Your task to perform on an android device: Search for hotels in Seattle Image 0: 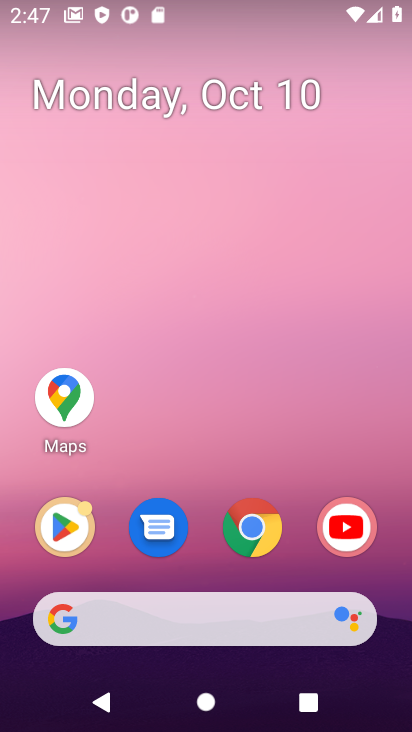
Step 0: press home button
Your task to perform on an android device: Search for hotels in Seattle Image 1: 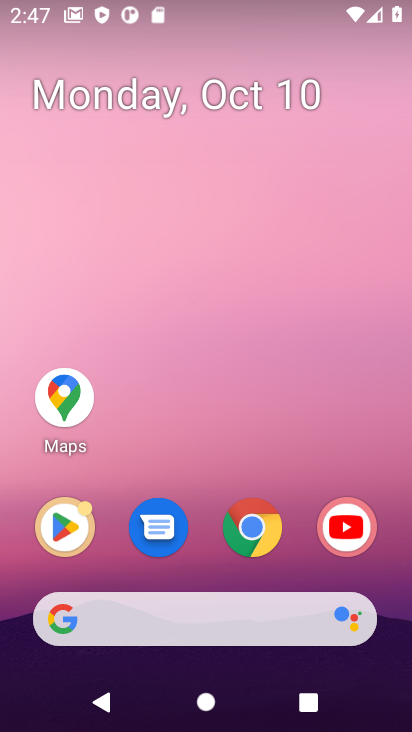
Step 1: click (268, 606)
Your task to perform on an android device: Search for hotels in Seattle Image 2: 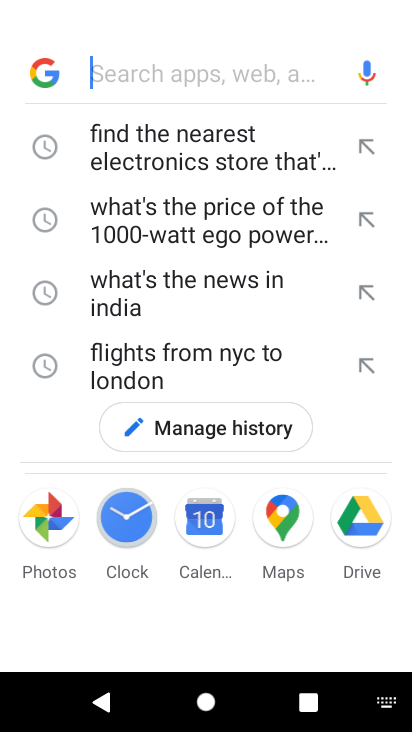
Step 2: type "Search for hotels in Seattle"
Your task to perform on an android device: Search for hotels in Seattle Image 3: 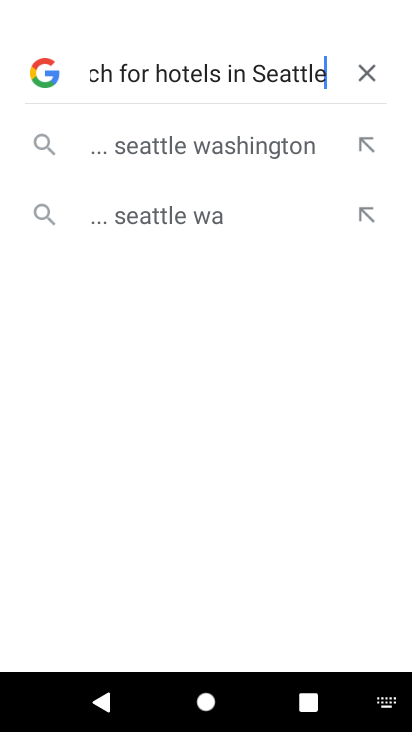
Step 3: press enter
Your task to perform on an android device: Search for hotels in Seattle Image 4: 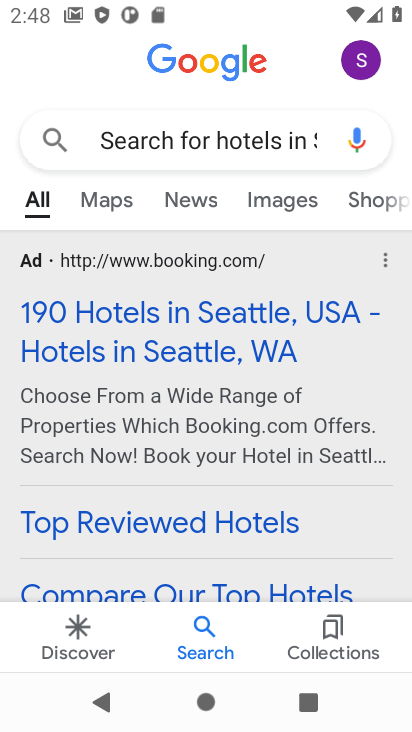
Step 4: click (229, 343)
Your task to perform on an android device: Search for hotels in Seattle Image 5: 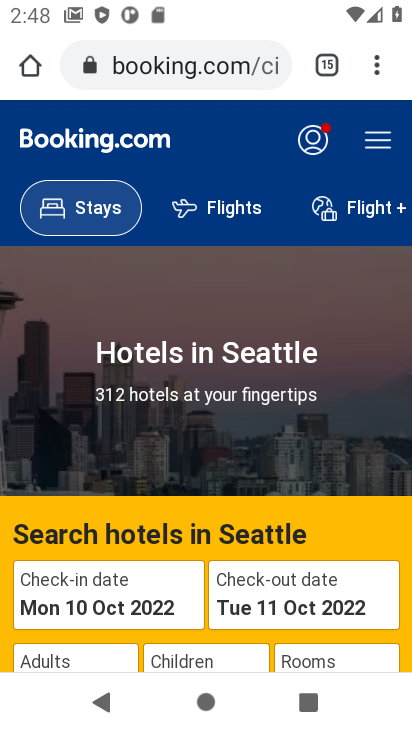
Step 5: drag from (241, 455) to (247, 300)
Your task to perform on an android device: Search for hotels in Seattle Image 6: 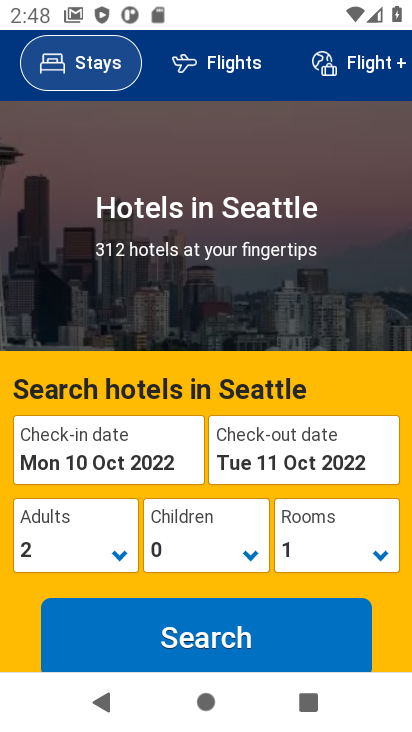
Step 6: drag from (240, 572) to (246, 409)
Your task to perform on an android device: Search for hotels in Seattle Image 7: 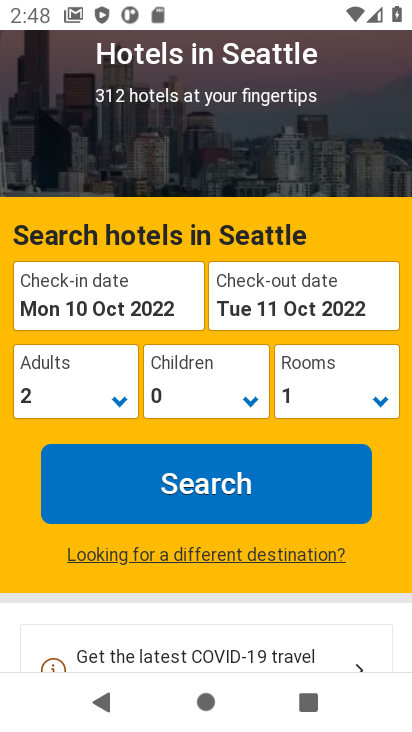
Step 7: click (230, 488)
Your task to perform on an android device: Search for hotels in Seattle Image 8: 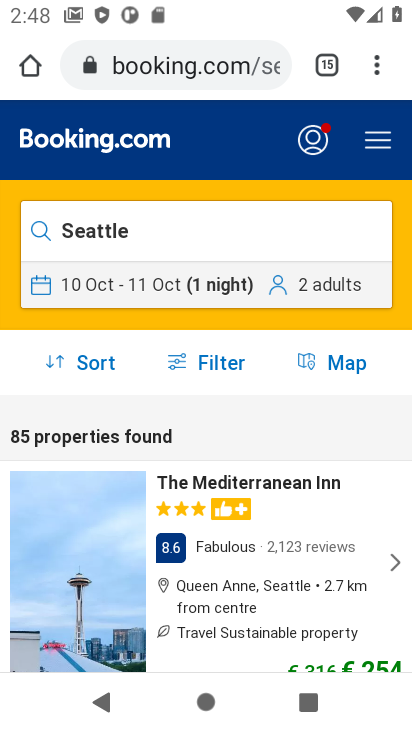
Step 8: task complete